Your task to perform on an android device: Open settings Image 0: 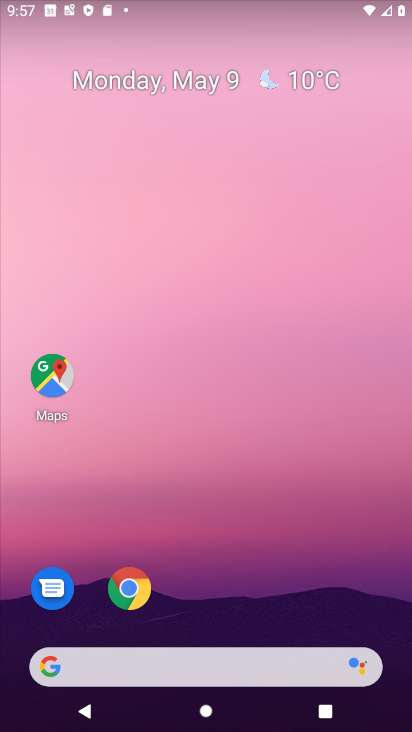
Step 0: press home button
Your task to perform on an android device: Open settings Image 1: 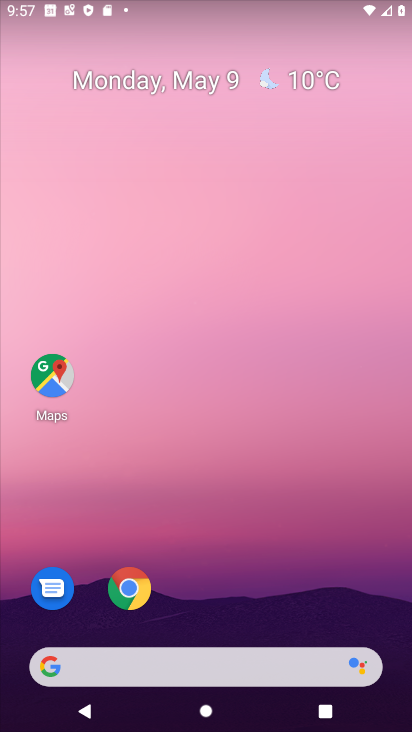
Step 1: drag from (137, 656) to (210, 58)
Your task to perform on an android device: Open settings Image 2: 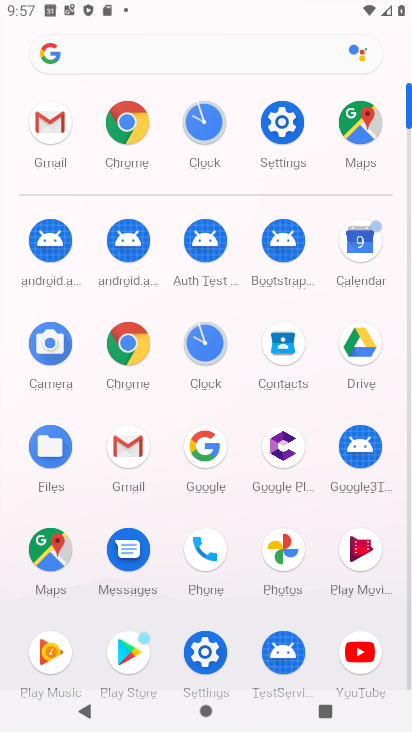
Step 2: click (291, 117)
Your task to perform on an android device: Open settings Image 3: 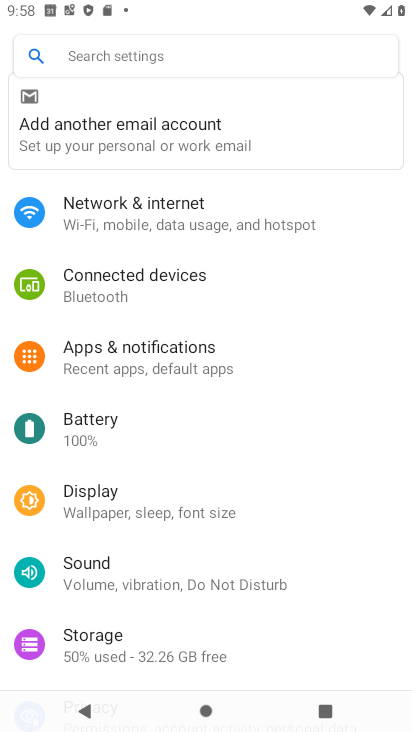
Step 3: task complete